Your task to perform on an android device: add a contact in the contacts app Image 0: 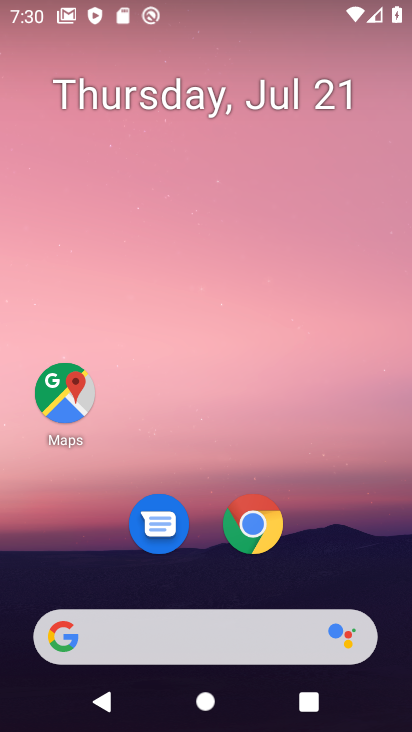
Step 0: press home button
Your task to perform on an android device: add a contact in the contacts app Image 1: 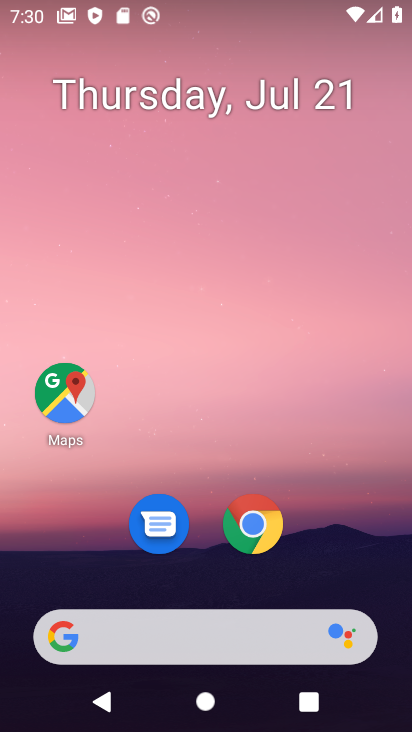
Step 1: drag from (187, 642) to (305, 157)
Your task to perform on an android device: add a contact in the contacts app Image 2: 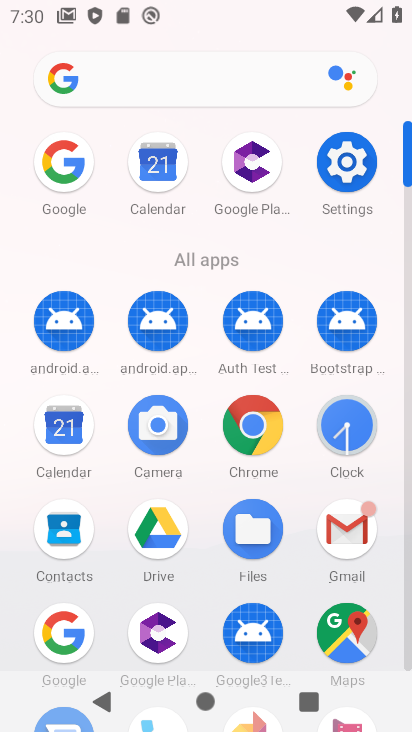
Step 2: click (60, 538)
Your task to perform on an android device: add a contact in the contacts app Image 3: 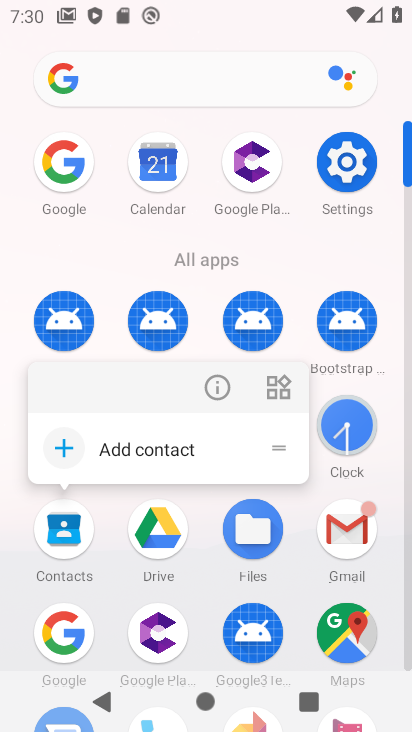
Step 3: click (61, 537)
Your task to perform on an android device: add a contact in the contacts app Image 4: 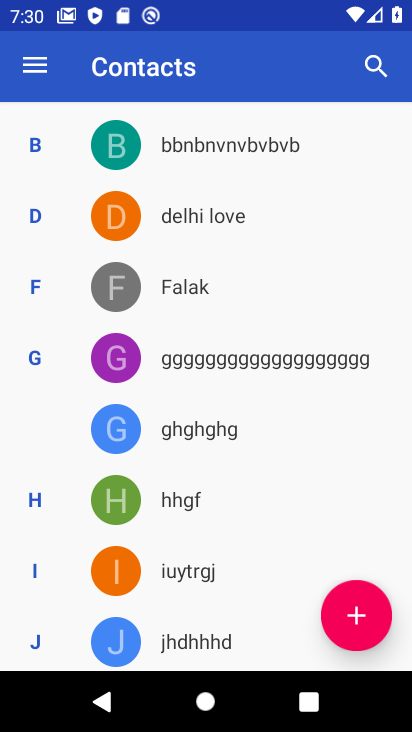
Step 4: click (356, 620)
Your task to perform on an android device: add a contact in the contacts app Image 5: 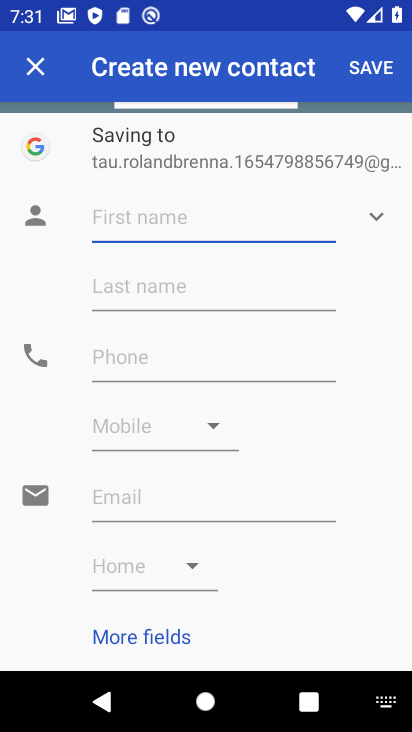
Step 5: type "beirythfjgj"
Your task to perform on an android device: add a contact in the contacts app Image 6: 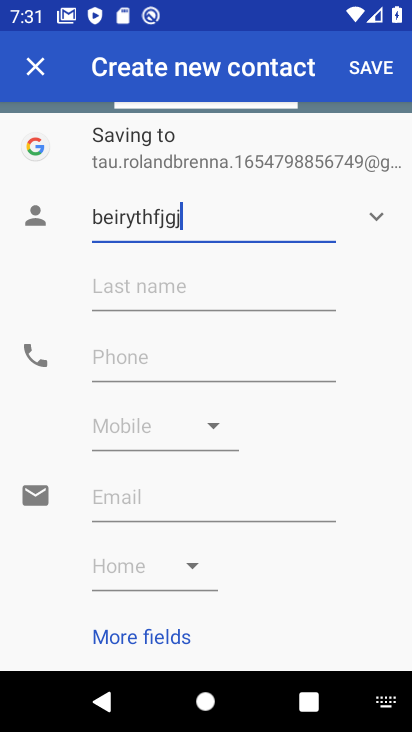
Step 6: click (128, 348)
Your task to perform on an android device: add a contact in the contacts app Image 7: 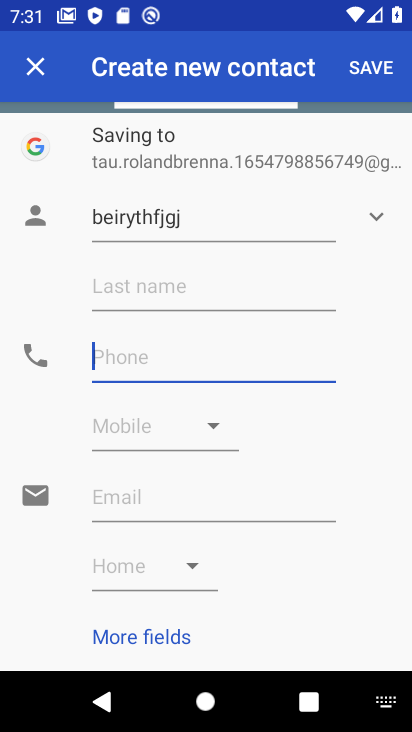
Step 7: type "10938876667"
Your task to perform on an android device: add a contact in the contacts app Image 8: 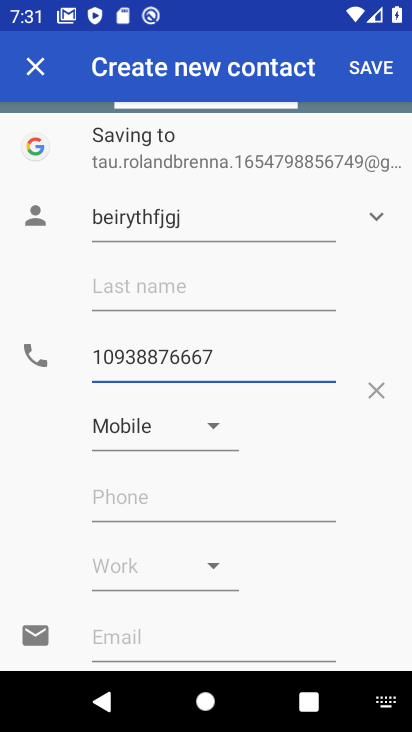
Step 8: click (370, 68)
Your task to perform on an android device: add a contact in the contacts app Image 9: 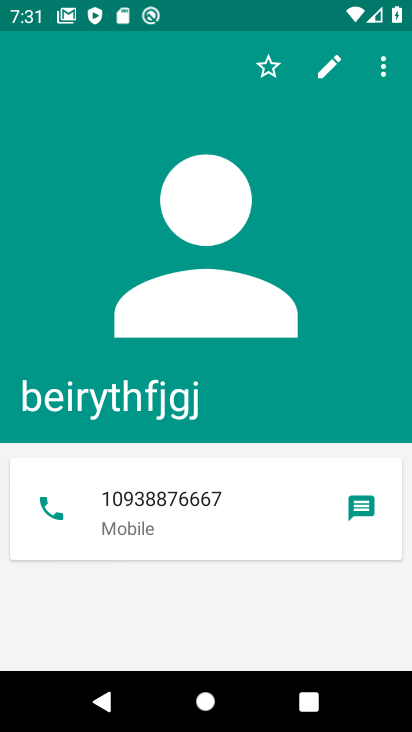
Step 9: task complete